Your task to perform on an android device: Empty the shopping cart on bestbuy.com. Add jbl charge 4 to the cart on bestbuy.com, then select checkout. Image 0: 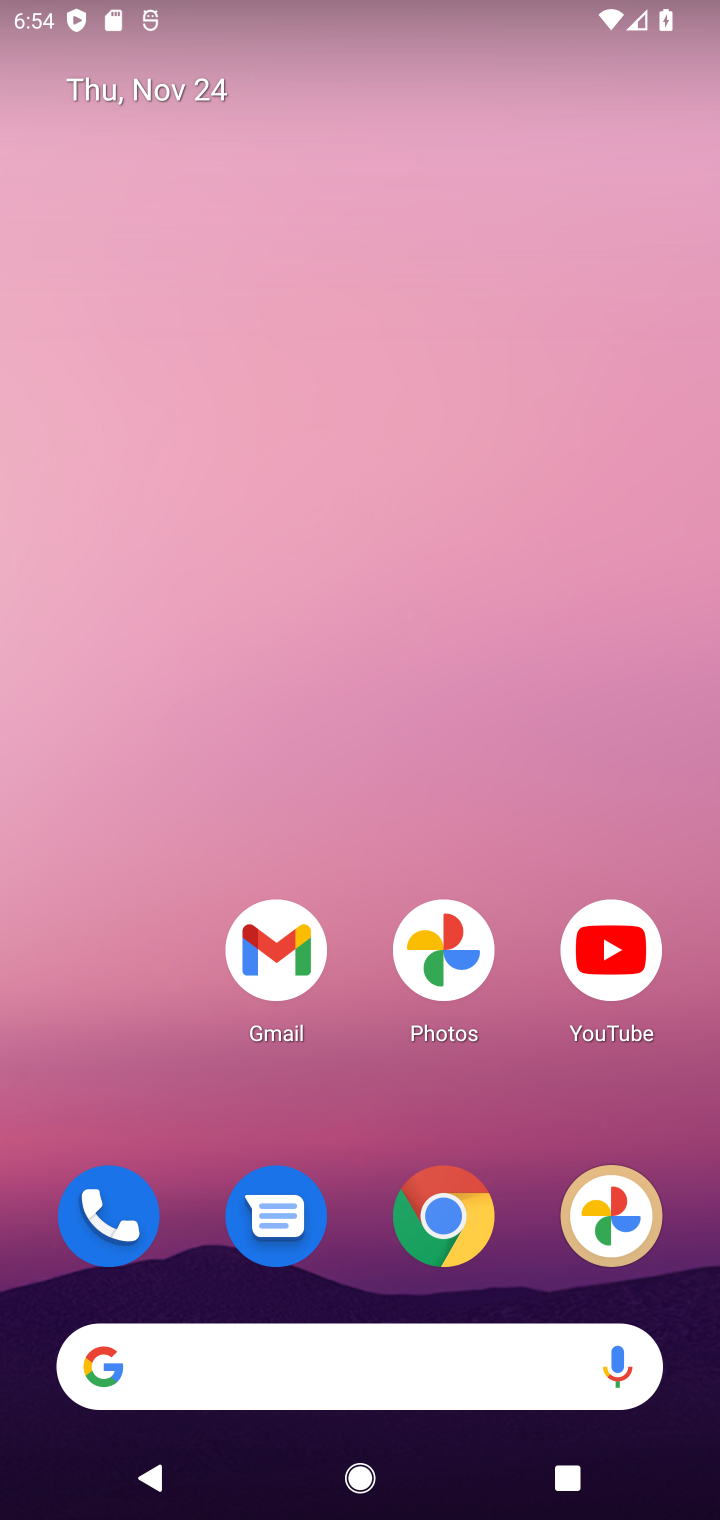
Step 0: click (438, 1203)
Your task to perform on an android device: Empty the shopping cart on bestbuy.com. Add jbl charge 4 to the cart on bestbuy.com, then select checkout. Image 1: 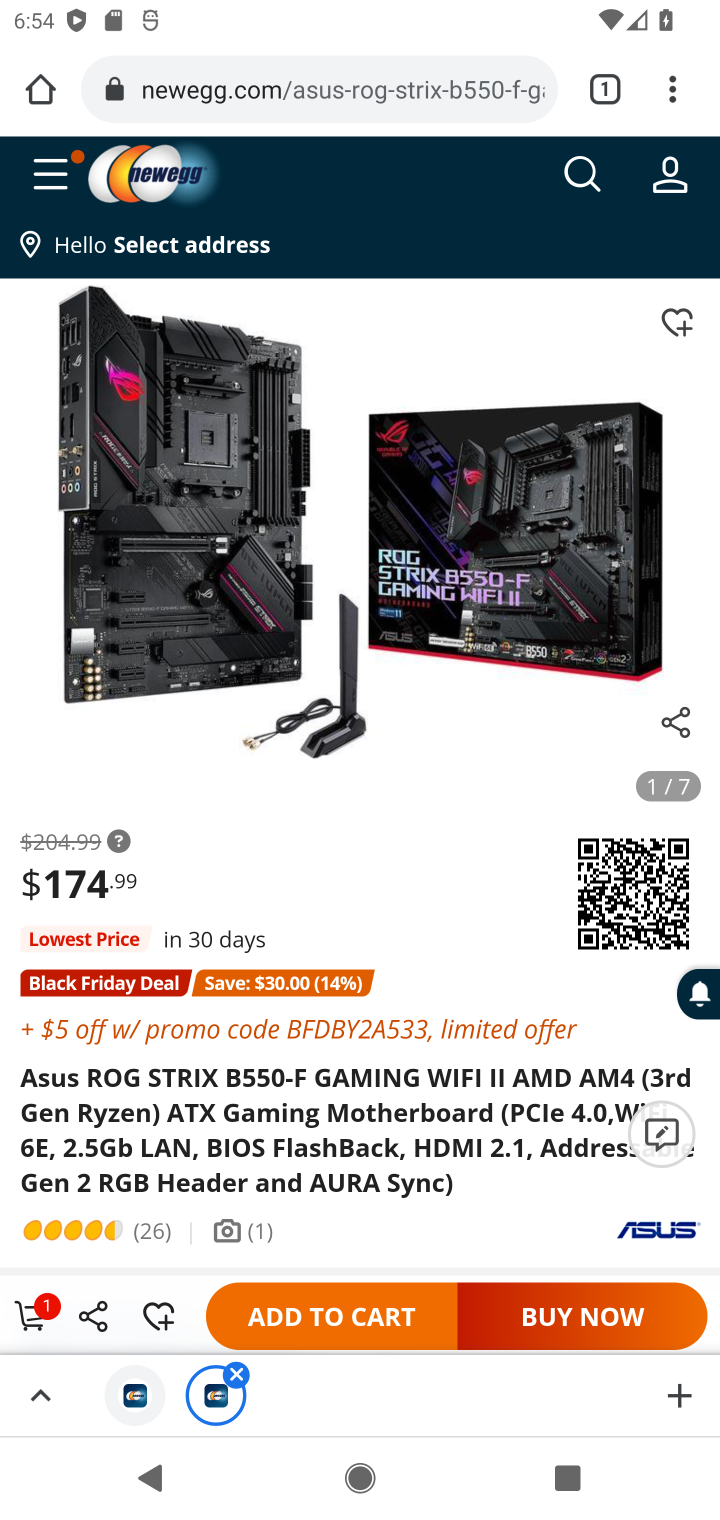
Step 1: click (232, 79)
Your task to perform on an android device: Empty the shopping cart on bestbuy.com. Add jbl charge 4 to the cart on bestbuy.com, then select checkout. Image 2: 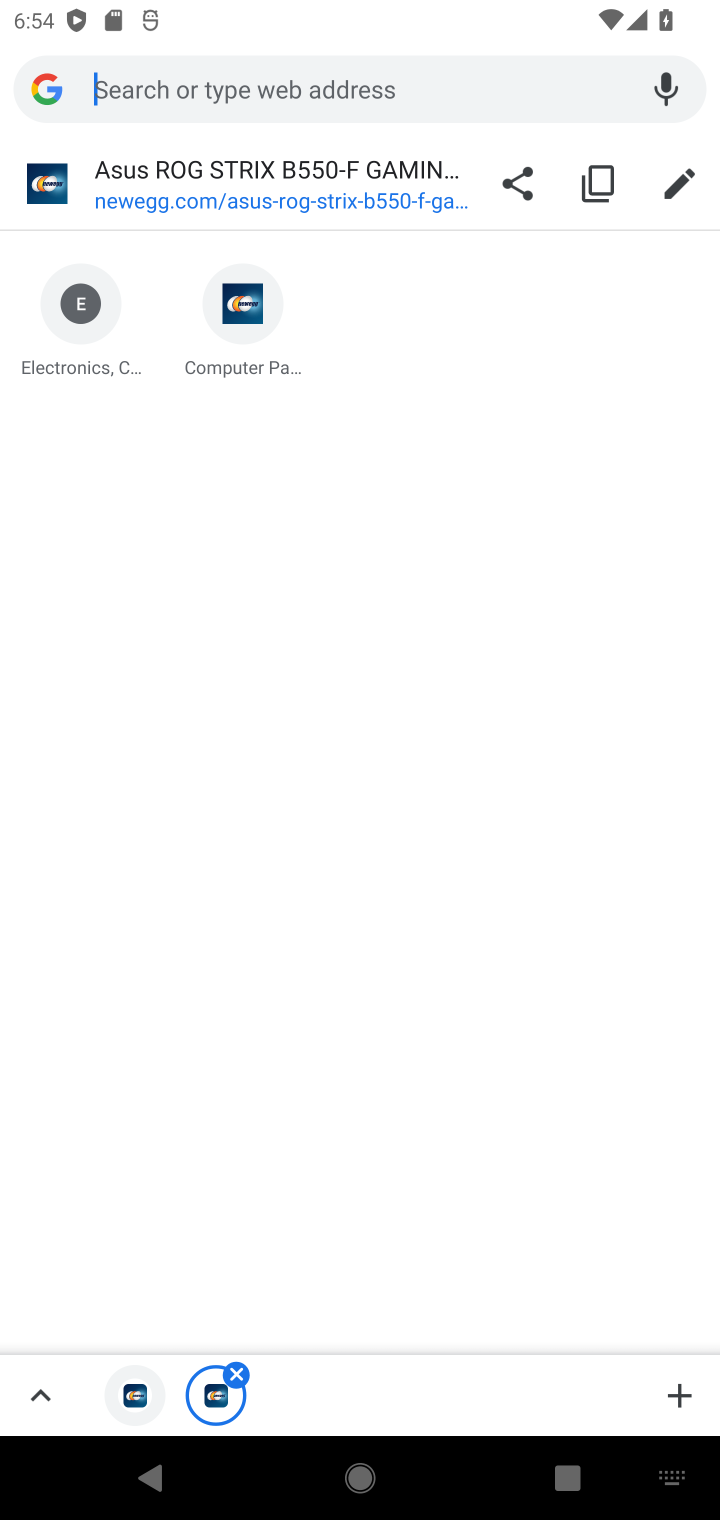
Step 2: type "bestbuy.com"
Your task to perform on an android device: Empty the shopping cart on bestbuy.com. Add jbl charge 4 to the cart on bestbuy.com, then select checkout. Image 3: 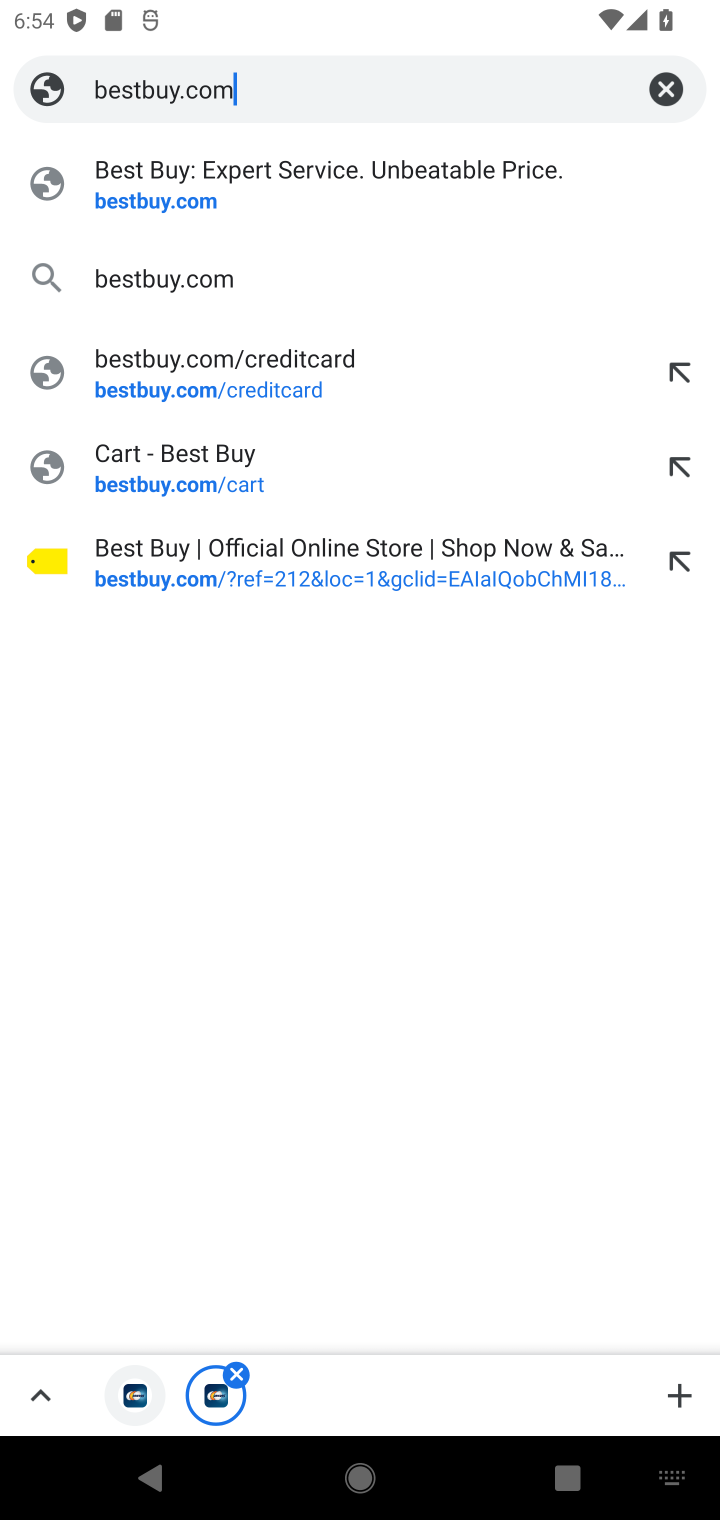
Step 3: click (292, 77)
Your task to perform on an android device: Empty the shopping cart on bestbuy.com. Add jbl charge 4 to the cart on bestbuy.com, then select checkout. Image 4: 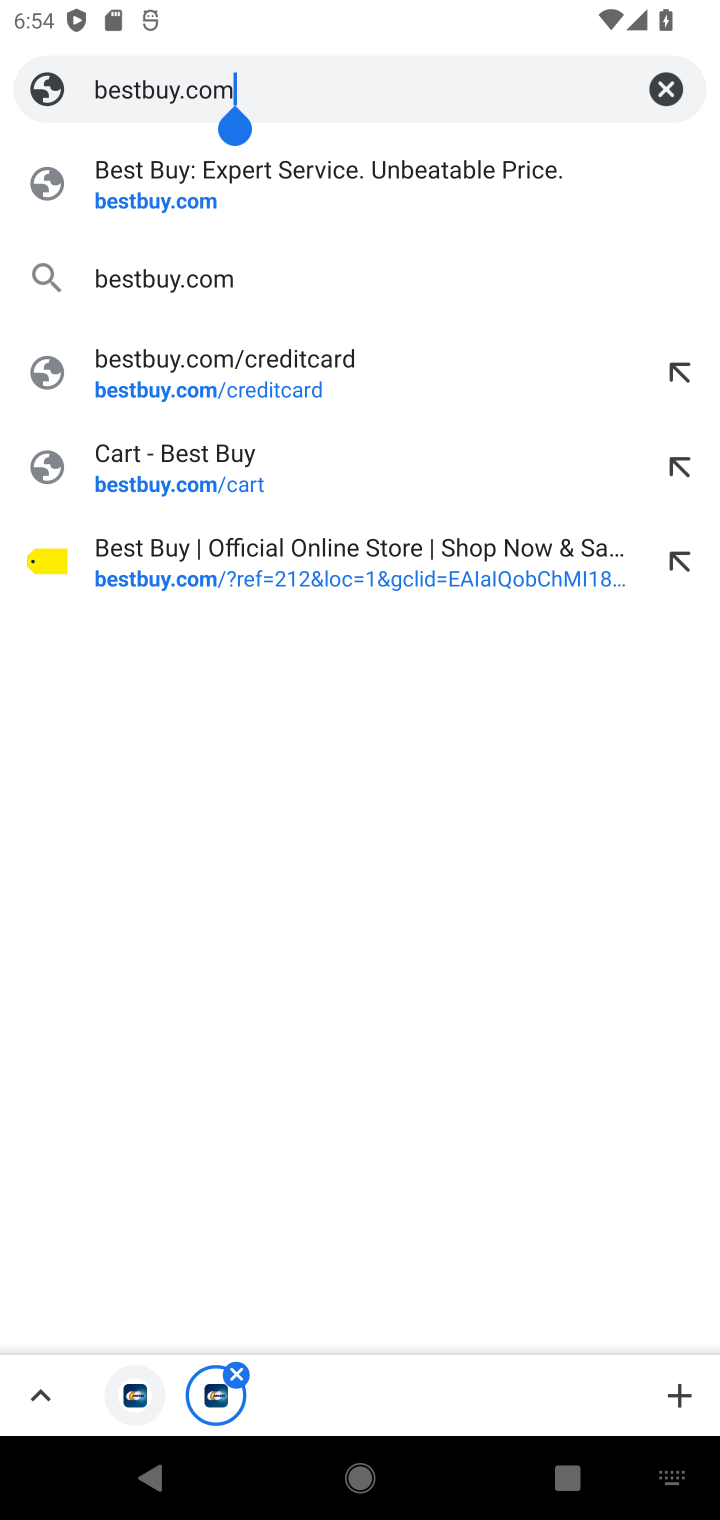
Step 4: click (198, 171)
Your task to perform on an android device: Empty the shopping cart on bestbuy.com. Add jbl charge 4 to the cart on bestbuy.com, then select checkout. Image 5: 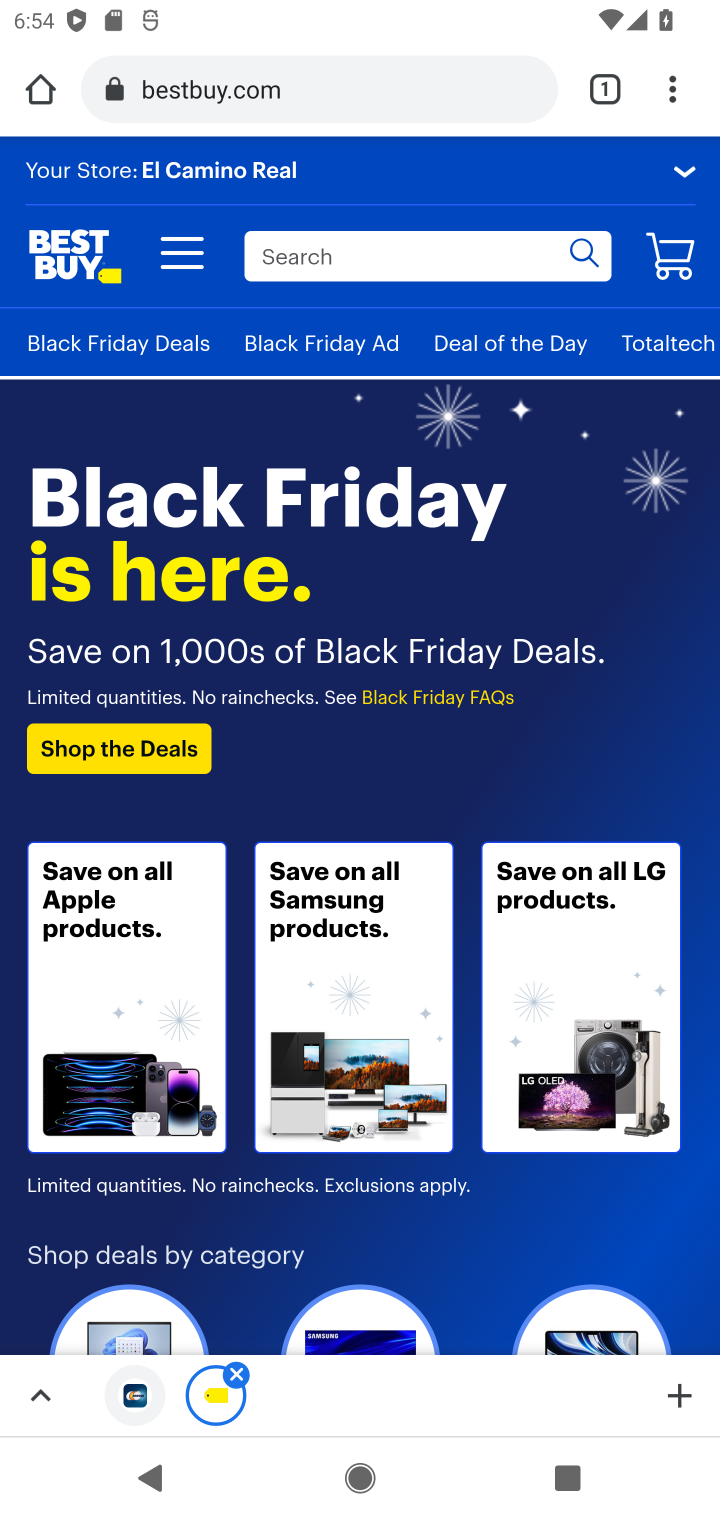
Step 5: click (675, 261)
Your task to perform on an android device: Empty the shopping cart on bestbuy.com. Add jbl charge 4 to the cart on bestbuy.com, then select checkout. Image 6: 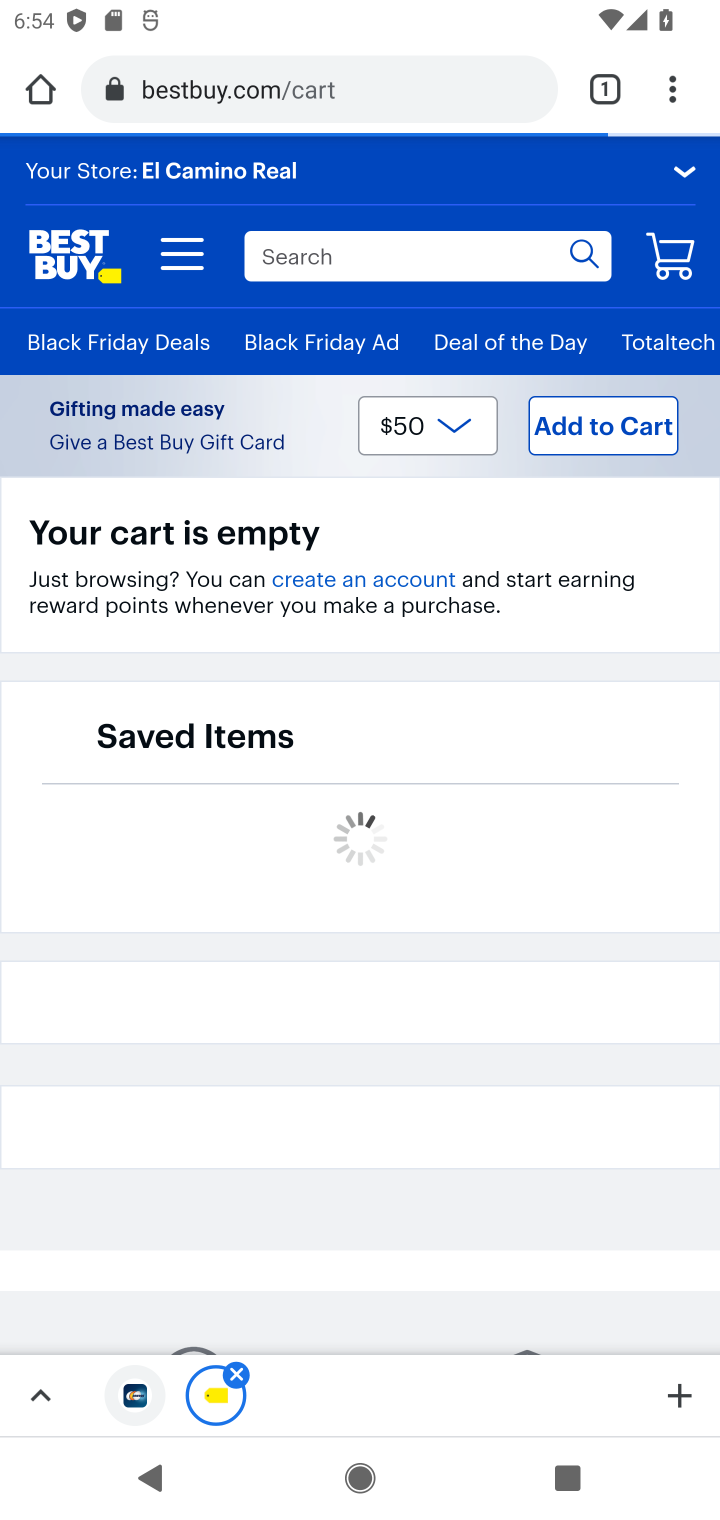
Step 6: click (434, 253)
Your task to perform on an android device: Empty the shopping cart on bestbuy.com. Add jbl charge 4 to the cart on bestbuy.com, then select checkout. Image 7: 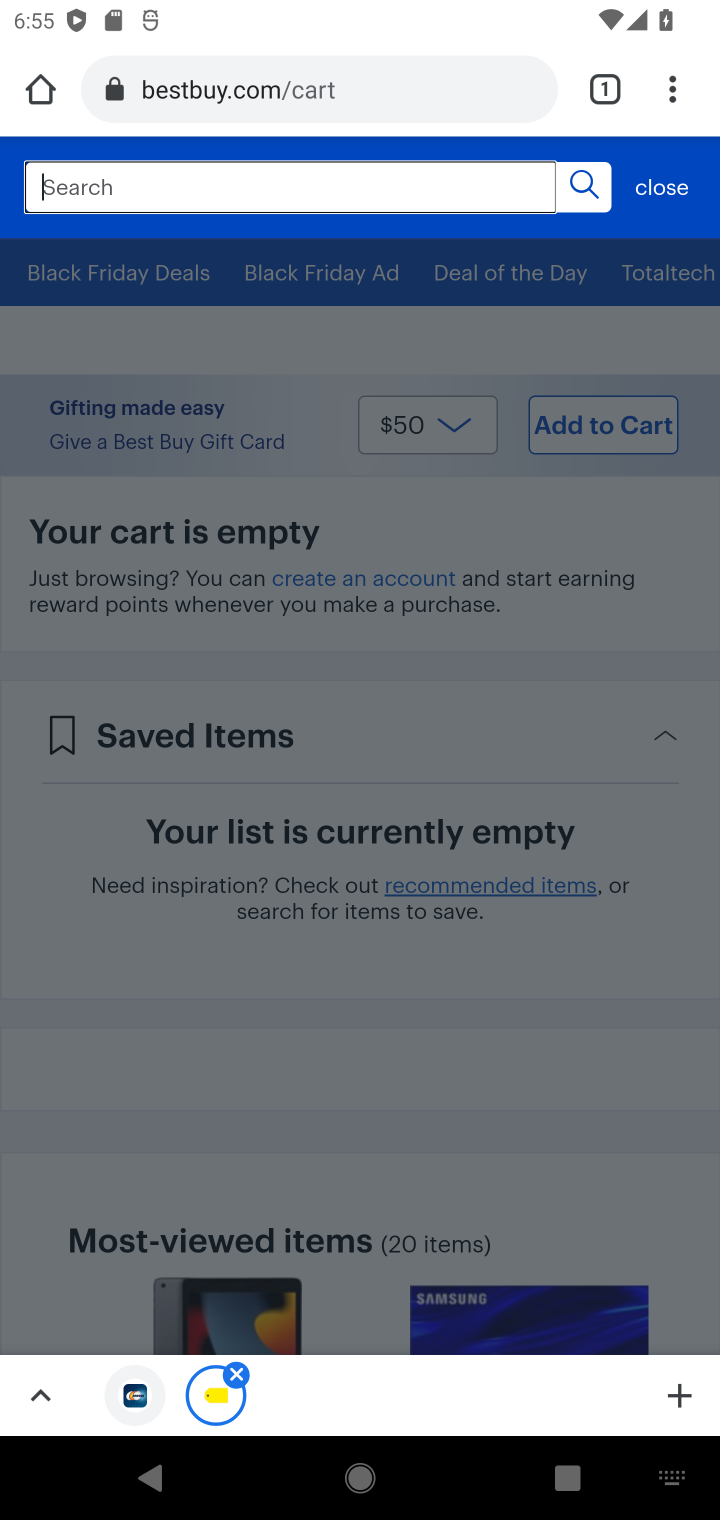
Step 7: type "jbl charge 4"
Your task to perform on an android device: Empty the shopping cart on bestbuy.com. Add jbl charge 4 to the cart on bestbuy.com, then select checkout. Image 8: 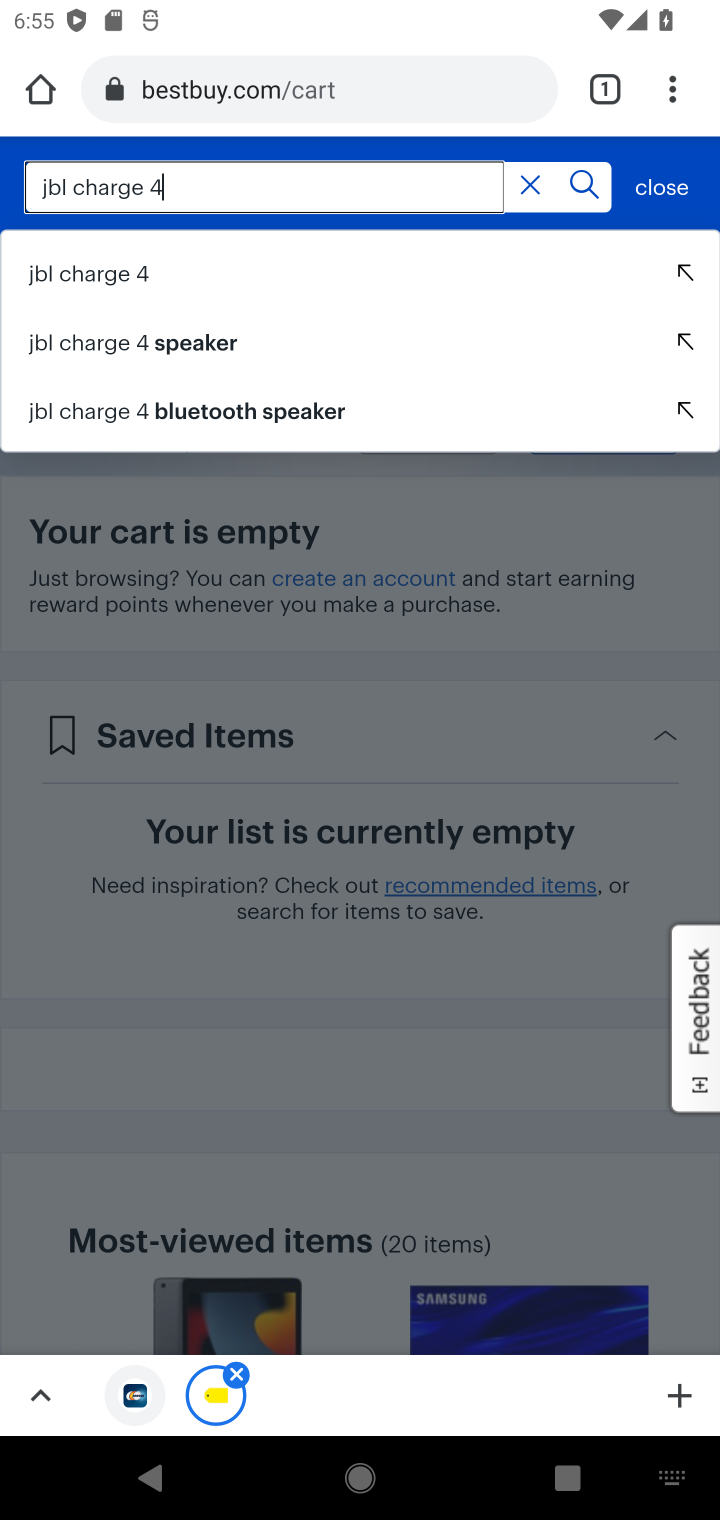
Step 8: click (106, 278)
Your task to perform on an android device: Empty the shopping cart on bestbuy.com. Add jbl charge 4 to the cart on bestbuy.com, then select checkout. Image 9: 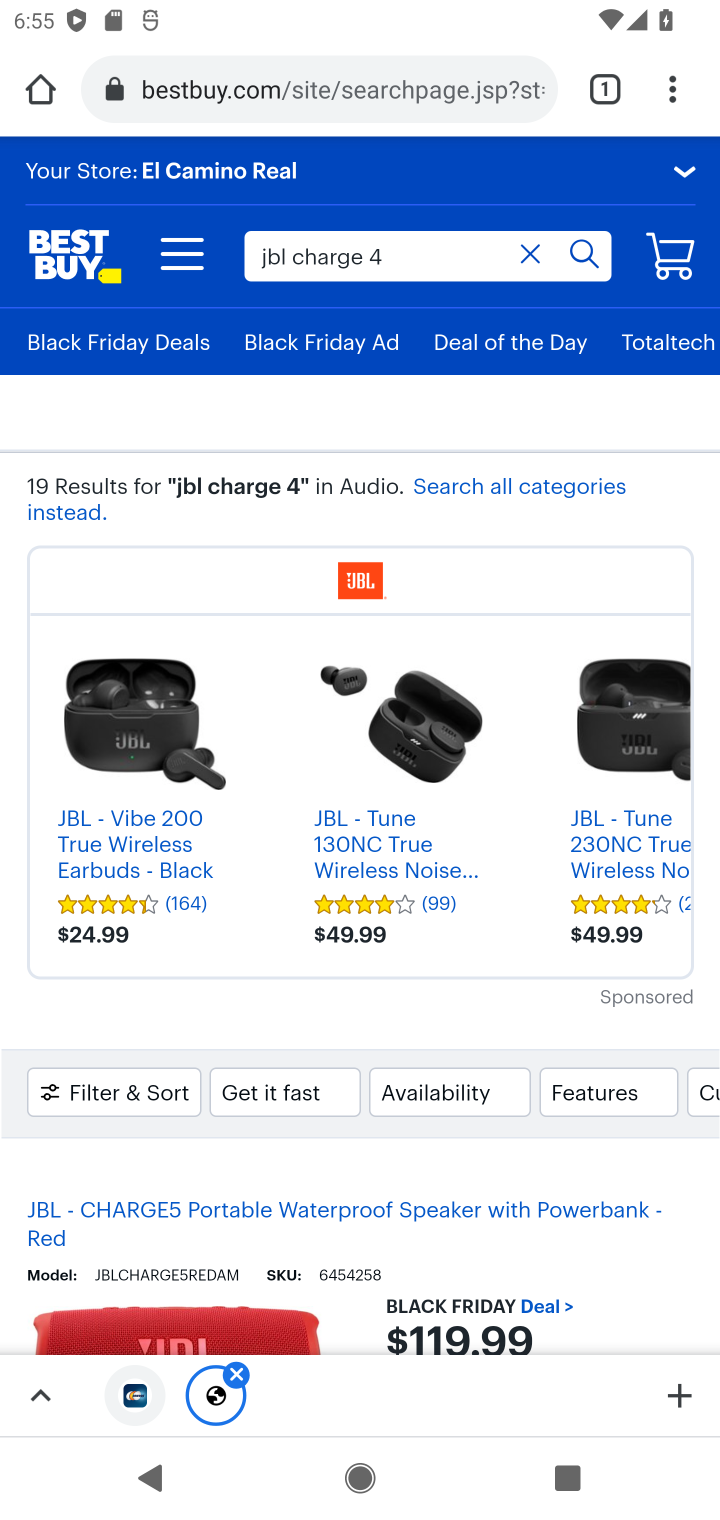
Step 9: drag from (439, 1133) to (429, 877)
Your task to perform on an android device: Empty the shopping cart on bestbuy.com. Add jbl charge 4 to the cart on bestbuy.com, then select checkout. Image 10: 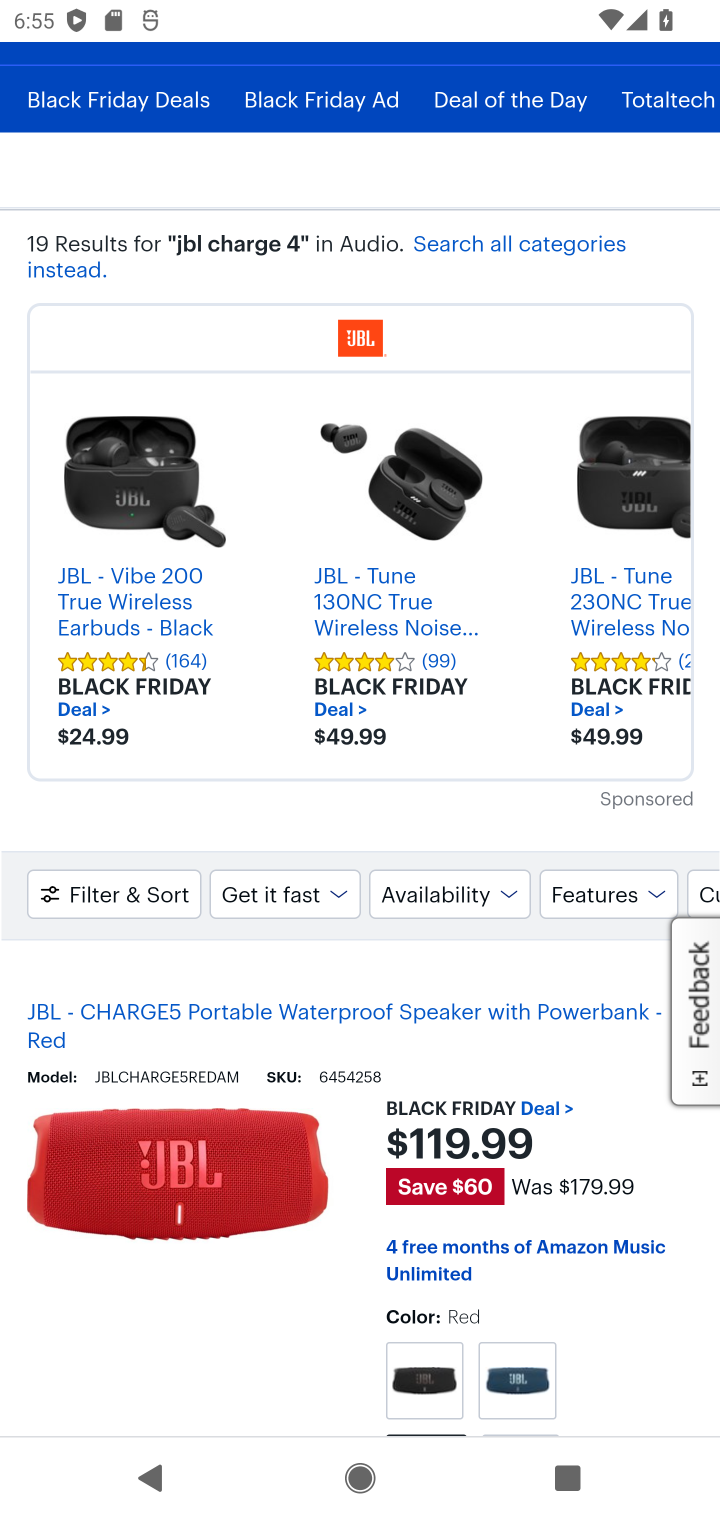
Step 10: drag from (323, 1212) to (309, 815)
Your task to perform on an android device: Empty the shopping cart on bestbuy.com. Add jbl charge 4 to the cart on bestbuy.com, then select checkout. Image 11: 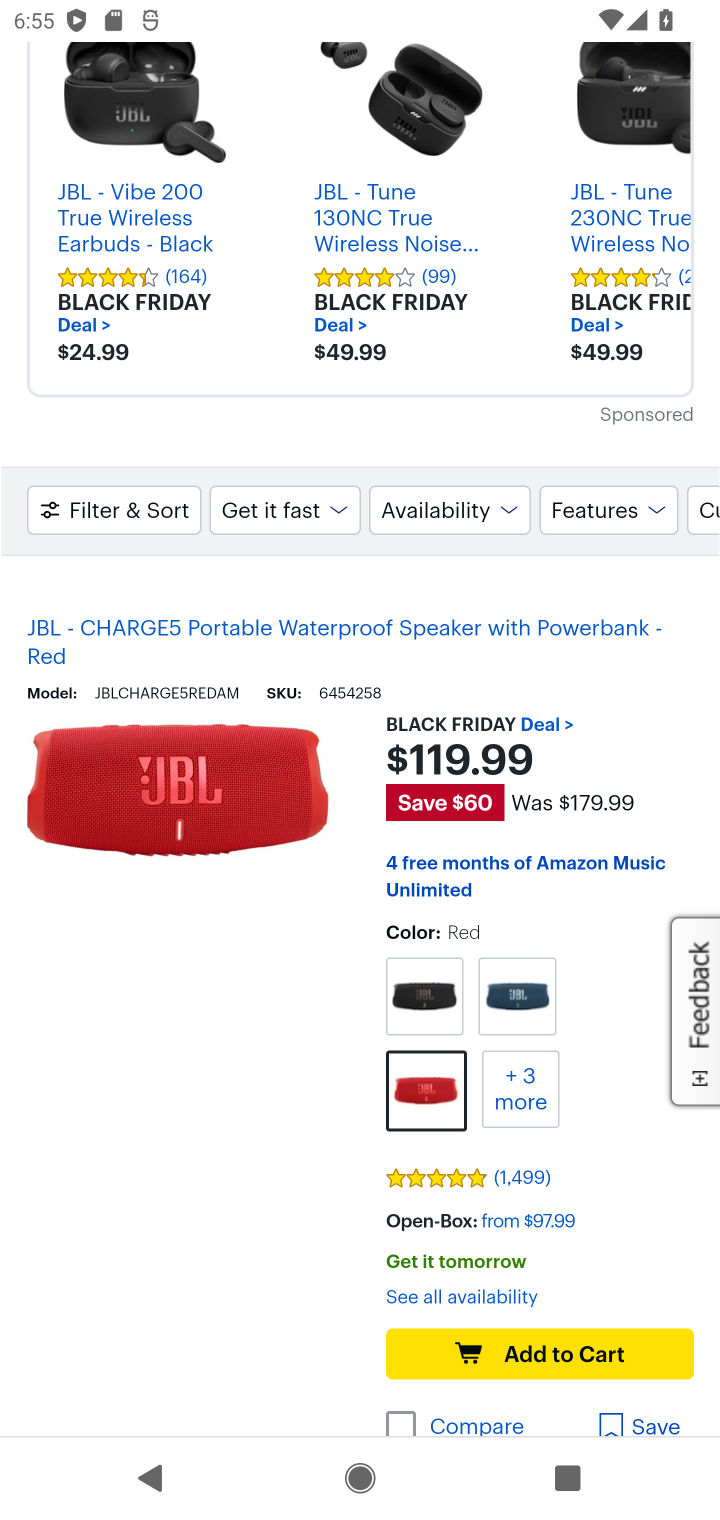
Step 11: click (558, 1349)
Your task to perform on an android device: Empty the shopping cart on bestbuy.com. Add jbl charge 4 to the cart on bestbuy.com, then select checkout. Image 12: 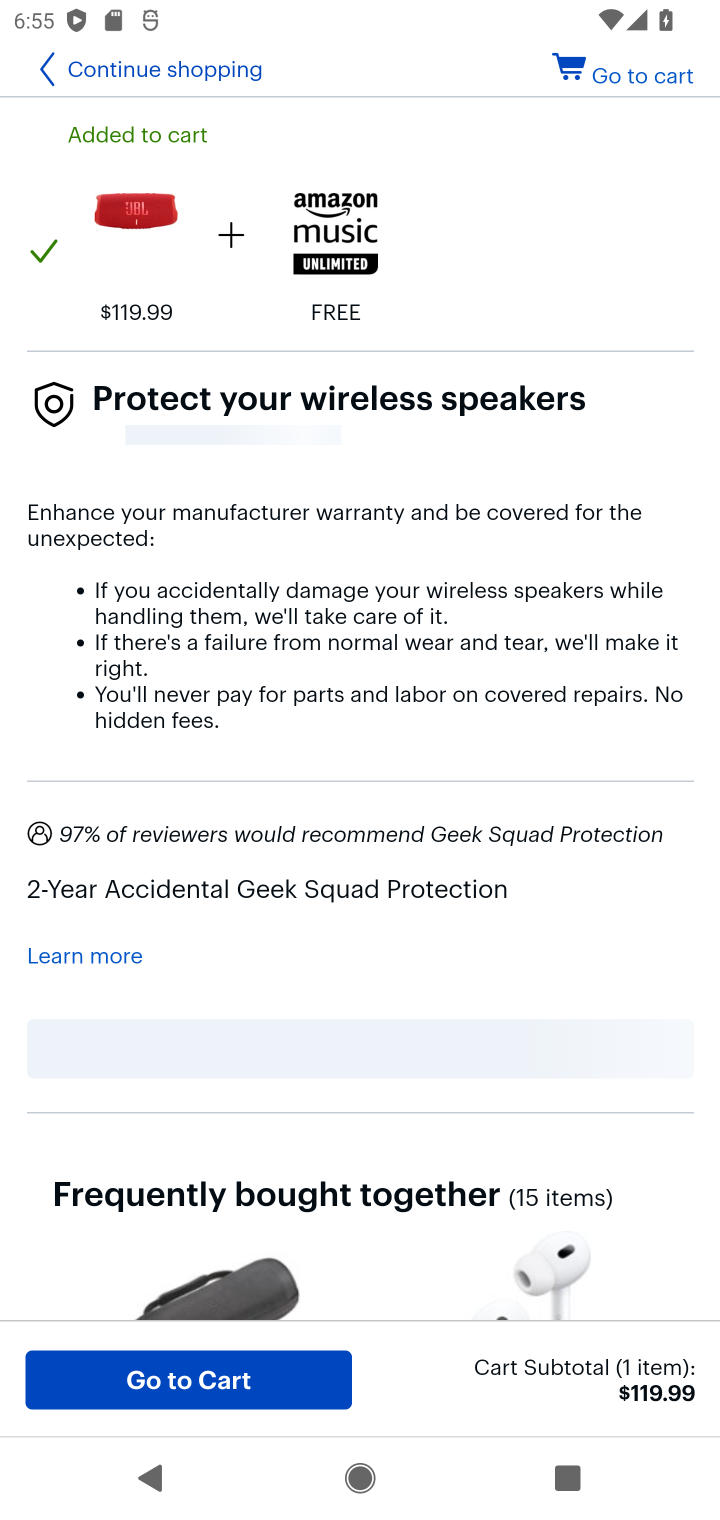
Step 12: click (291, 1388)
Your task to perform on an android device: Empty the shopping cart on bestbuy.com. Add jbl charge 4 to the cart on bestbuy.com, then select checkout. Image 13: 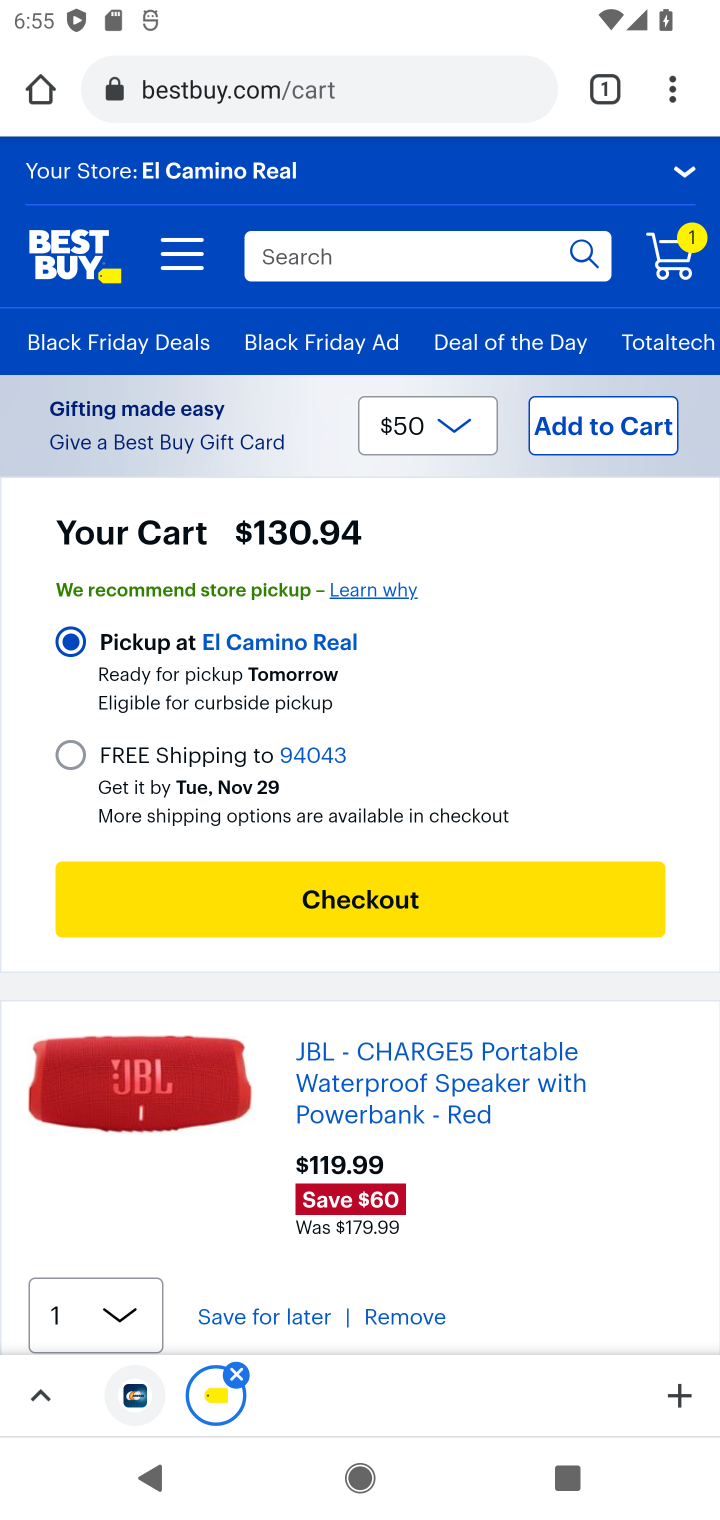
Step 13: click (398, 891)
Your task to perform on an android device: Empty the shopping cart on bestbuy.com. Add jbl charge 4 to the cart on bestbuy.com, then select checkout. Image 14: 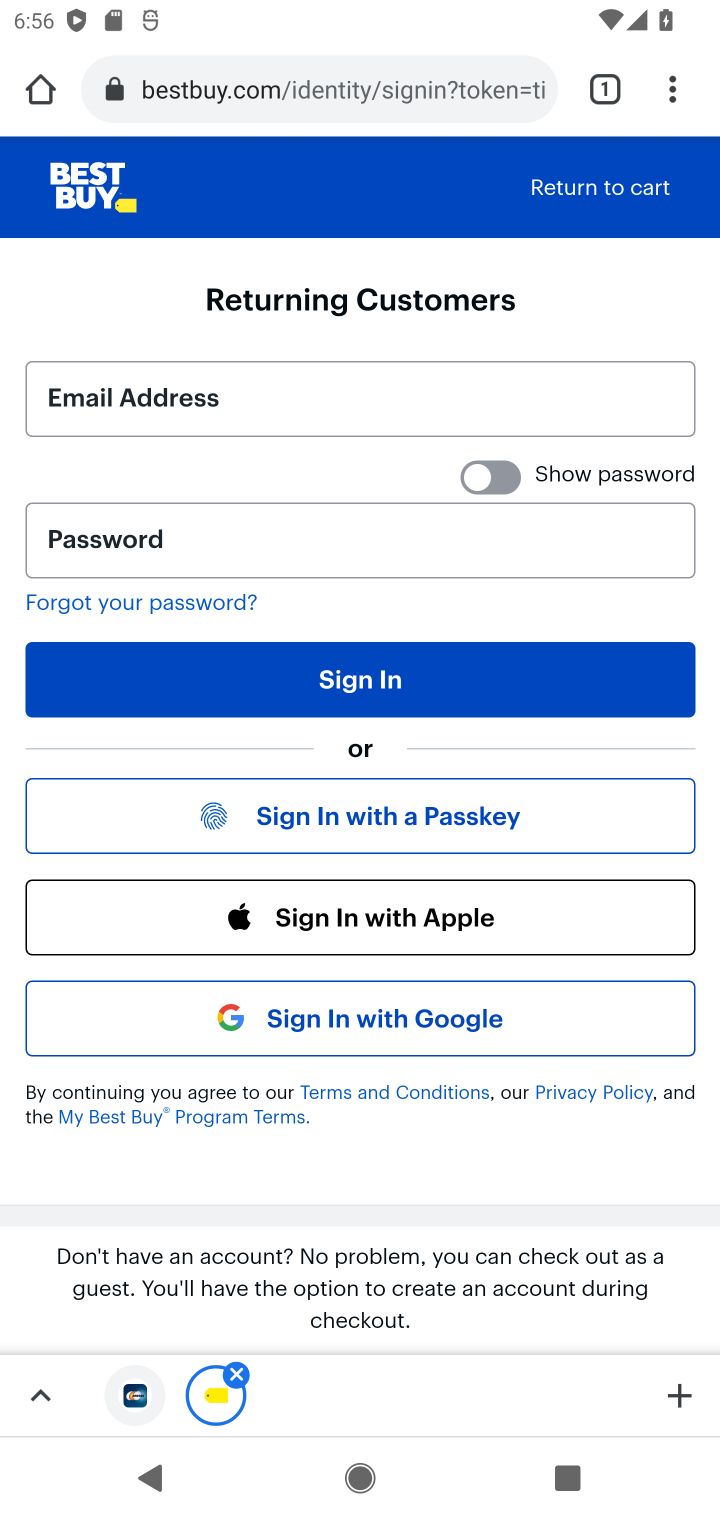
Step 14: task complete